Your task to perform on an android device: Show me popular games on the Play Store Image 0: 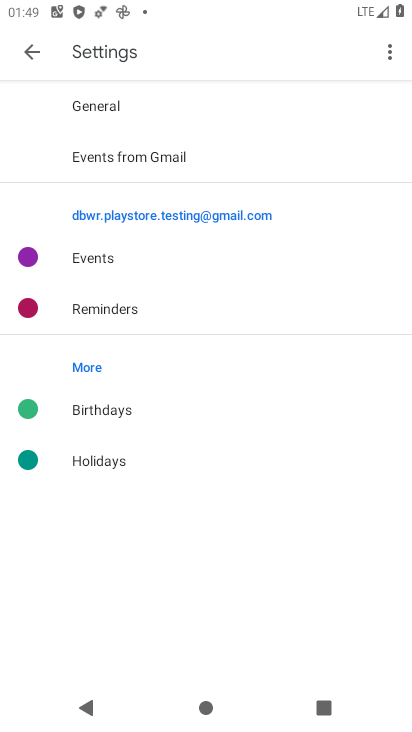
Step 0: press home button
Your task to perform on an android device: Show me popular games on the Play Store Image 1: 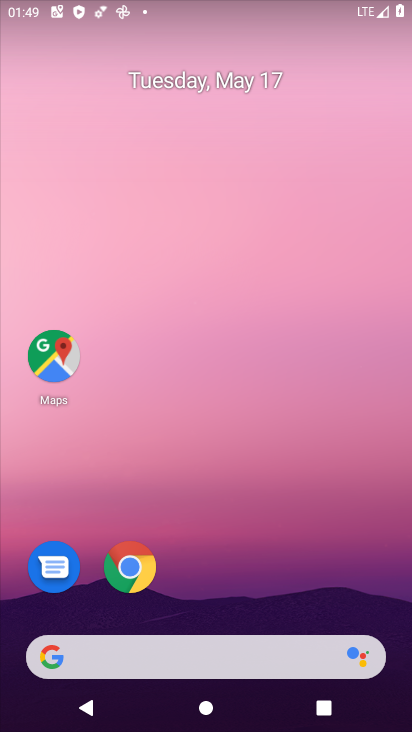
Step 1: drag from (386, 610) to (295, 58)
Your task to perform on an android device: Show me popular games on the Play Store Image 2: 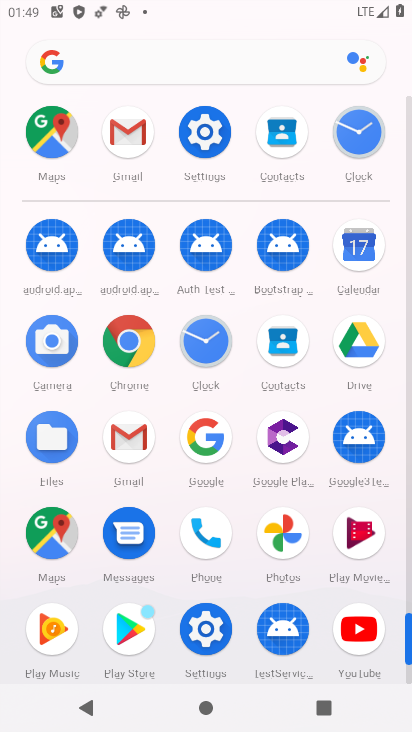
Step 2: click (410, 676)
Your task to perform on an android device: Show me popular games on the Play Store Image 3: 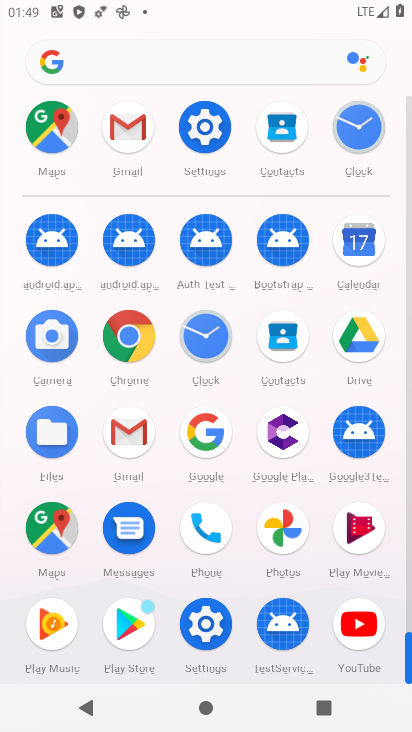
Step 3: click (129, 625)
Your task to perform on an android device: Show me popular games on the Play Store Image 4: 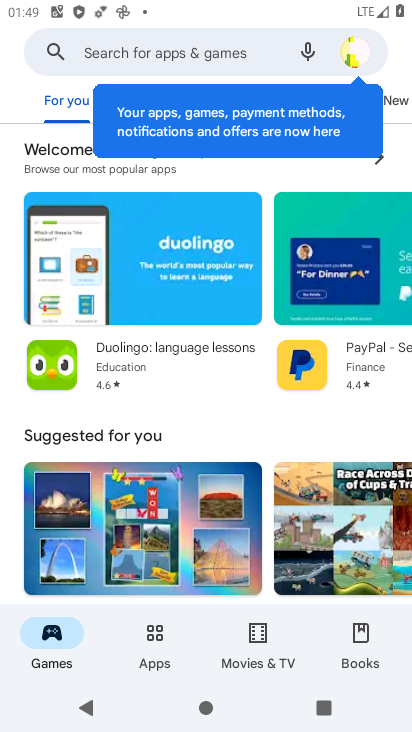
Step 4: drag from (337, 443) to (289, 73)
Your task to perform on an android device: Show me popular games on the Play Store Image 5: 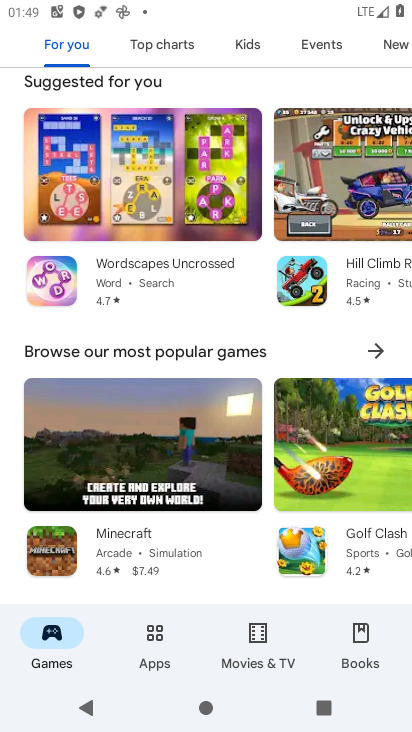
Step 5: click (374, 345)
Your task to perform on an android device: Show me popular games on the Play Store Image 6: 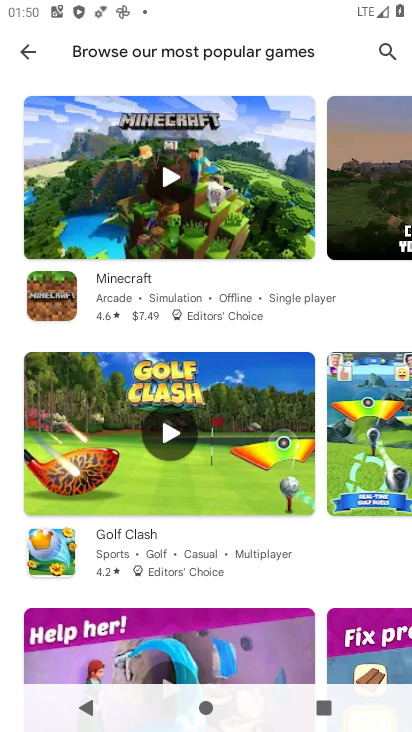
Step 6: task complete